Your task to perform on an android device: Do I have any events today? Image 0: 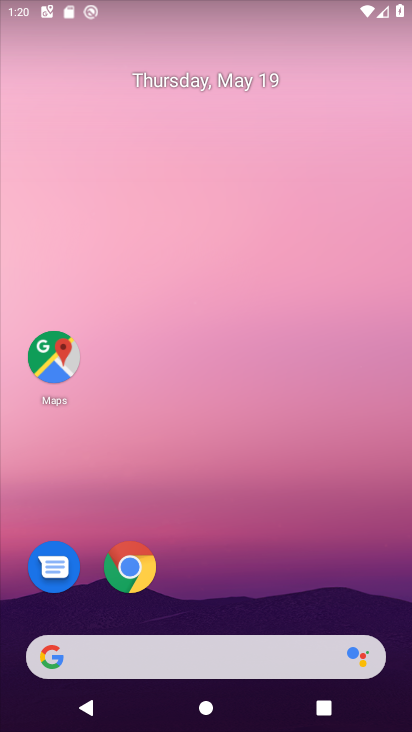
Step 0: drag from (322, 509) to (264, 169)
Your task to perform on an android device: Do I have any events today? Image 1: 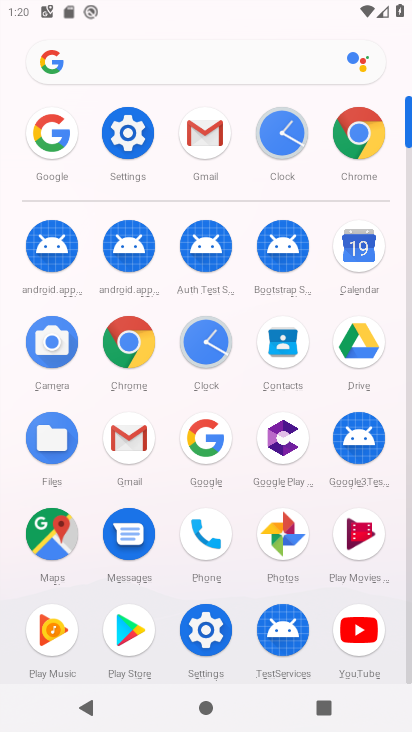
Step 1: click (222, 129)
Your task to perform on an android device: Do I have any events today? Image 2: 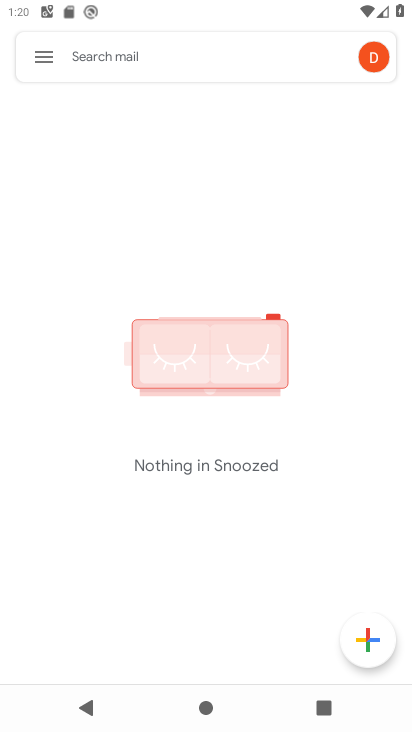
Step 2: press home button
Your task to perform on an android device: Do I have any events today? Image 3: 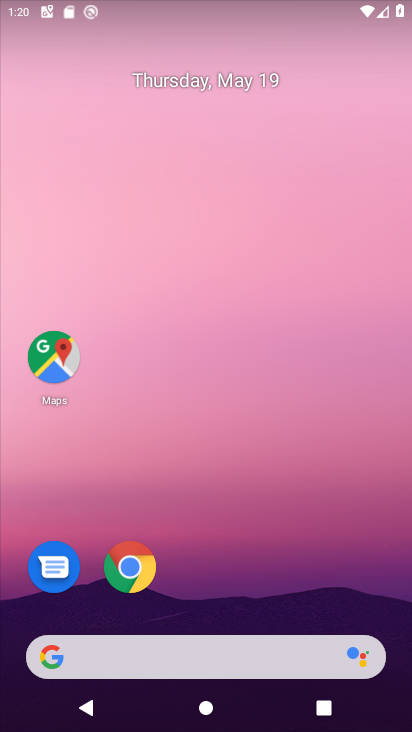
Step 3: click (226, 88)
Your task to perform on an android device: Do I have any events today? Image 4: 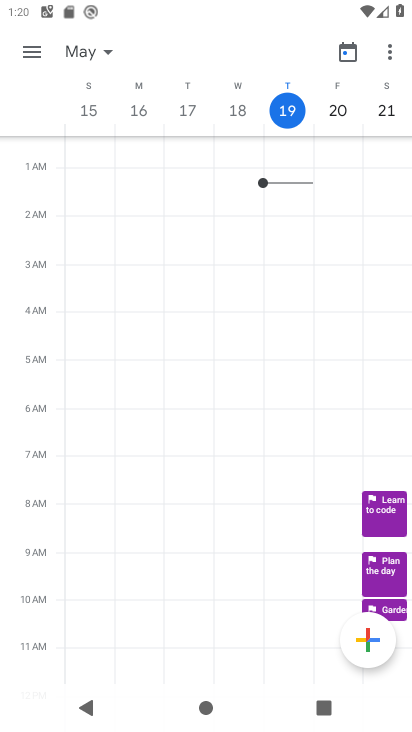
Step 4: click (226, 88)
Your task to perform on an android device: Do I have any events today? Image 5: 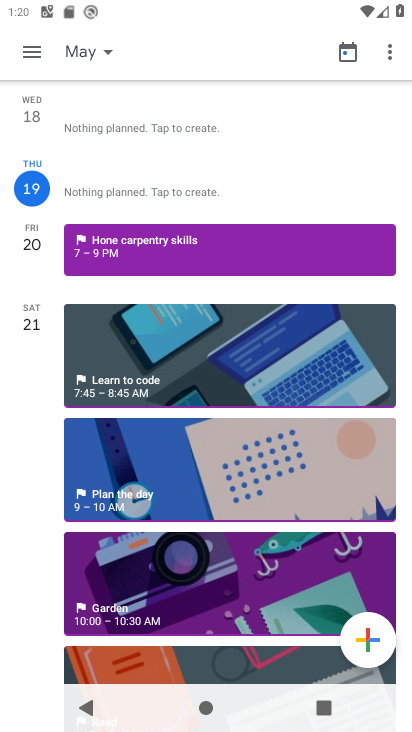
Step 5: click (26, 60)
Your task to perform on an android device: Do I have any events today? Image 6: 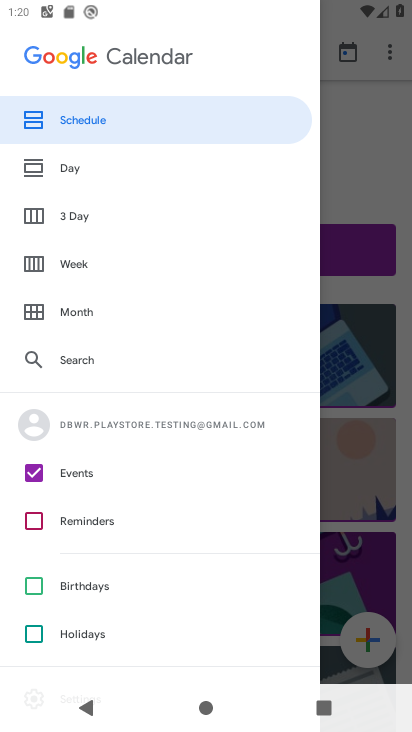
Step 6: click (67, 183)
Your task to perform on an android device: Do I have any events today? Image 7: 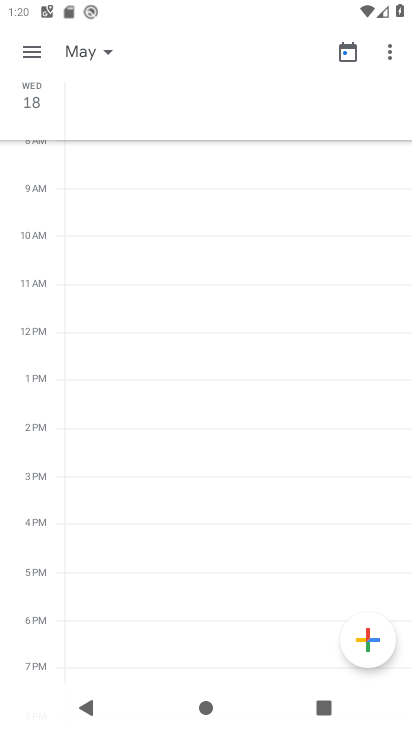
Step 7: click (73, 50)
Your task to perform on an android device: Do I have any events today? Image 8: 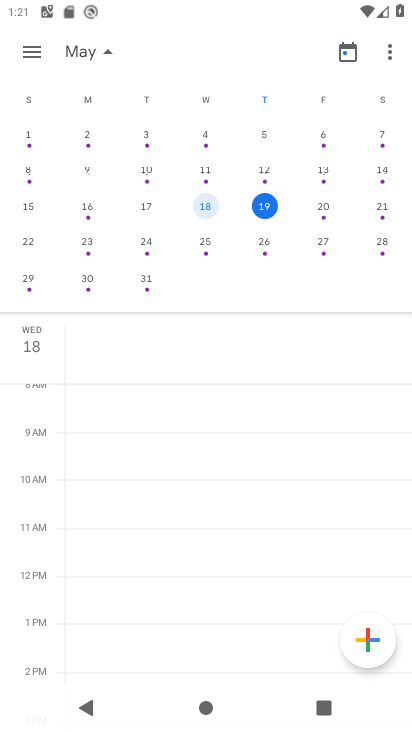
Step 8: click (265, 210)
Your task to perform on an android device: Do I have any events today? Image 9: 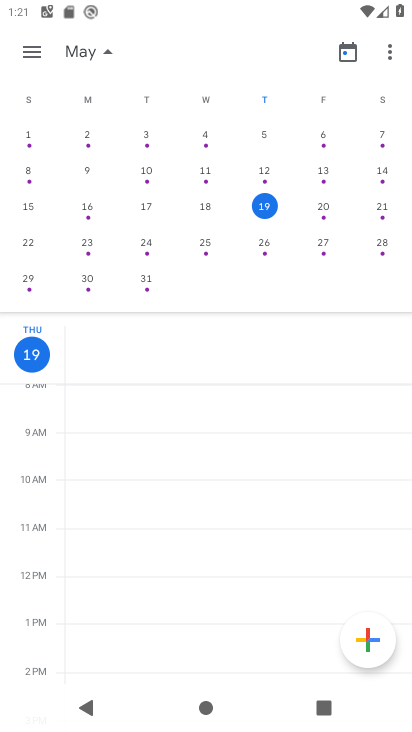
Step 9: click (265, 210)
Your task to perform on an android device: Do I have any events today? Image 10: 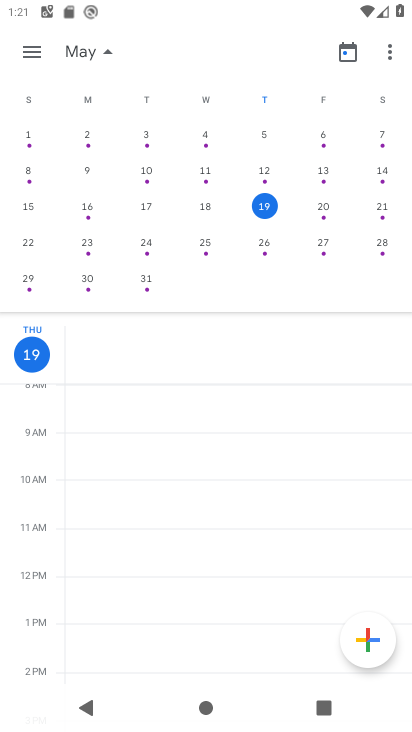
Step 10: click (219, 550)
Your task to perform on an android device: Do I have any events today? Image 11: 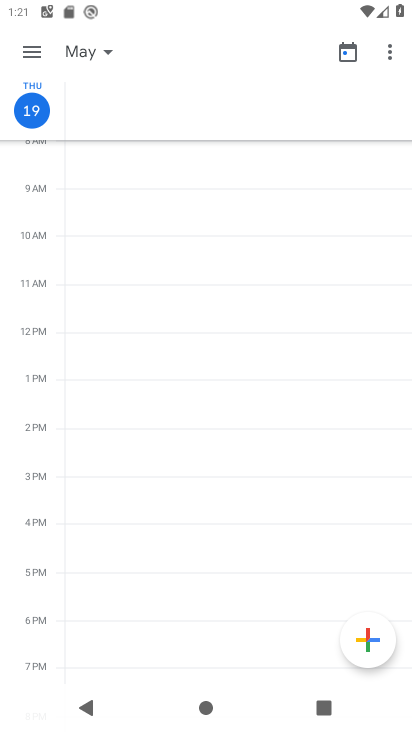
Step 11: task complete